Your task to perform on an android device: Go to Google Image 0: 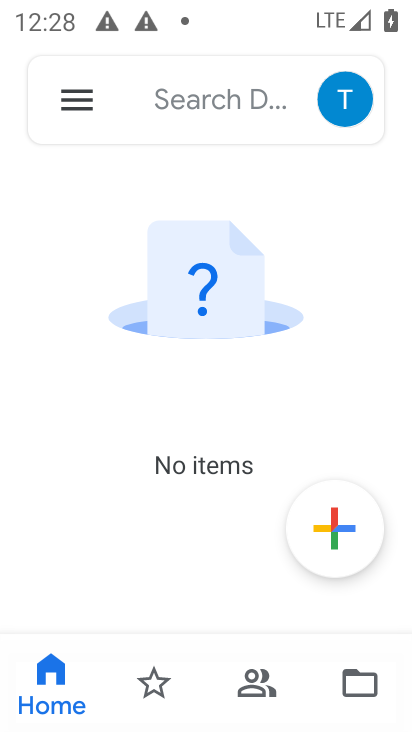
Step 0: press home button
Your task to perform on an android device: Go to Google Image 1: 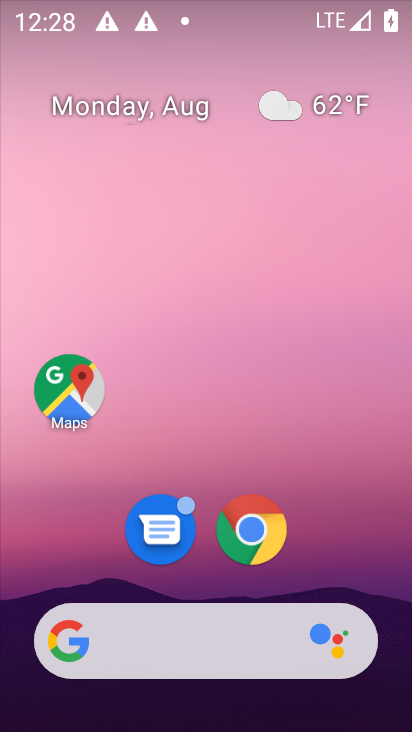
Step 1: drag from (202, 620) to (206, 426)
Your task to perform on an android device: Go to Google Image 2: 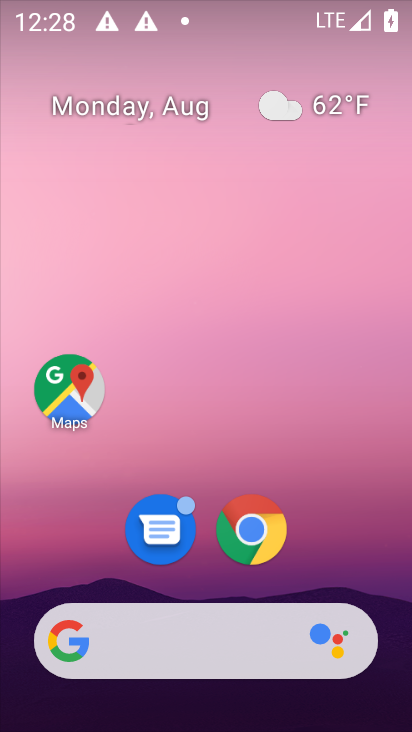
Step 2: drag from (201, 604) to (200, 208)
Your task to perform on an android device: Go to Google Image 3: 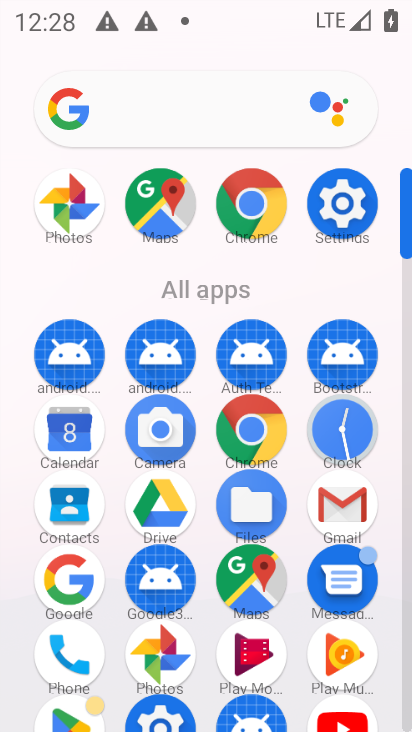
Step 3: click (71, 573)
Your task to perform on an android device: Go to Google Image 4: 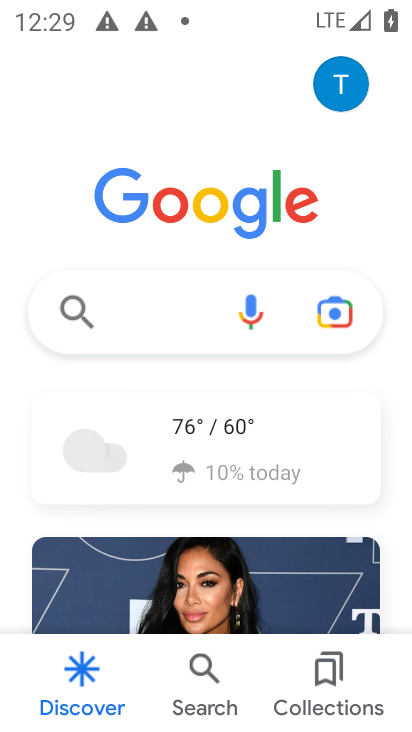
Step 4: task complete